Your task to perform on an android device: What is the recent news? Image 0: 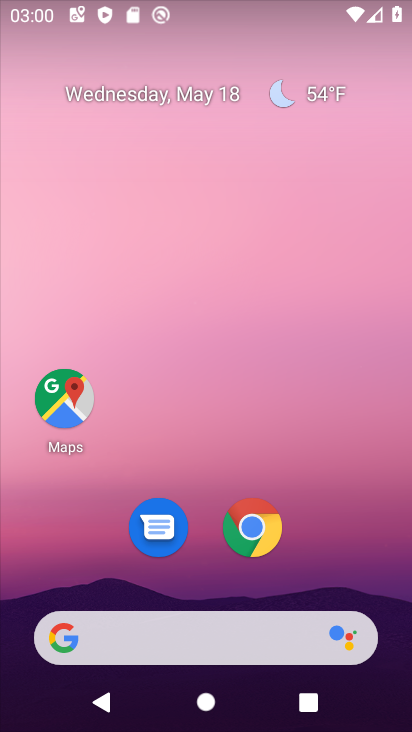
Step 0: drag from (174, 607) to (314, 61)
Your task to perform on an android device: What is the recent news? Image 1: 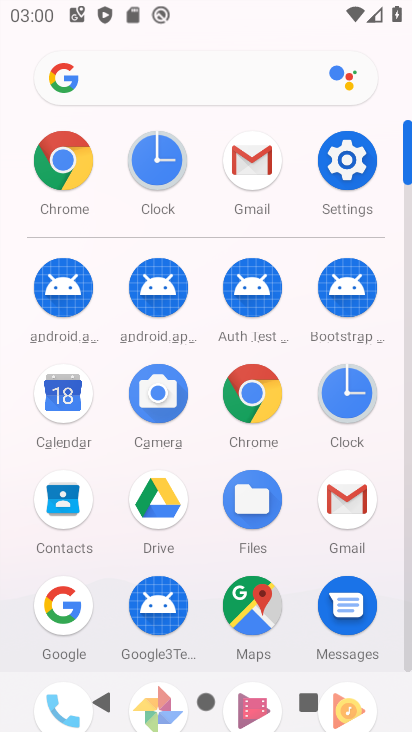
Step 1: drag from (209, 542) to (166, 117)
Your task to perform on an android device: What is the recent news? Image 2: 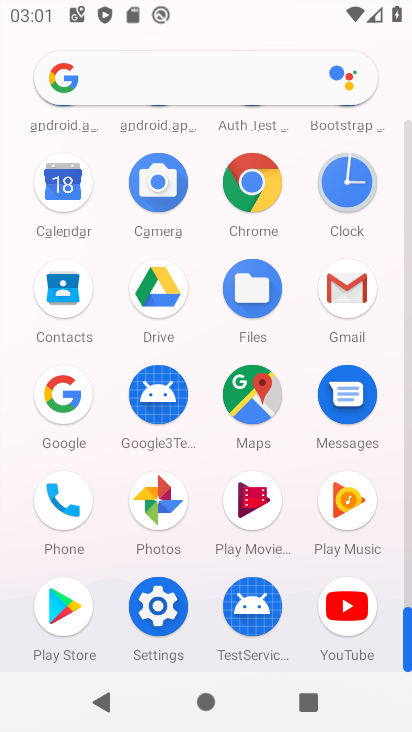
Step 2: drag from (214, 305) to (238, 641)
Your task to perform on an android device: What is the recent news? Image 3: 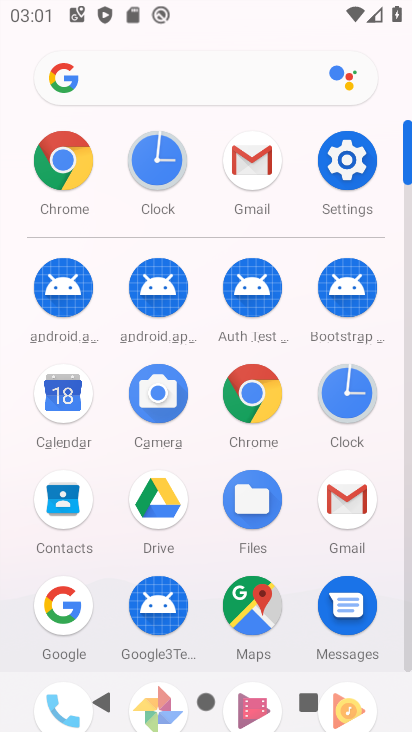
Step 3: click (347, 515)
Your task to perform on an android device: What is the recent news? Image 4: 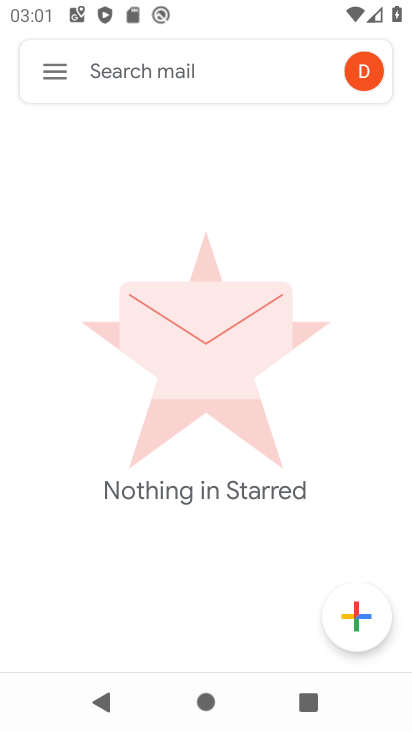
Step 4: press home button
Your task to perform on an android device: What is the recent news? Image 5: 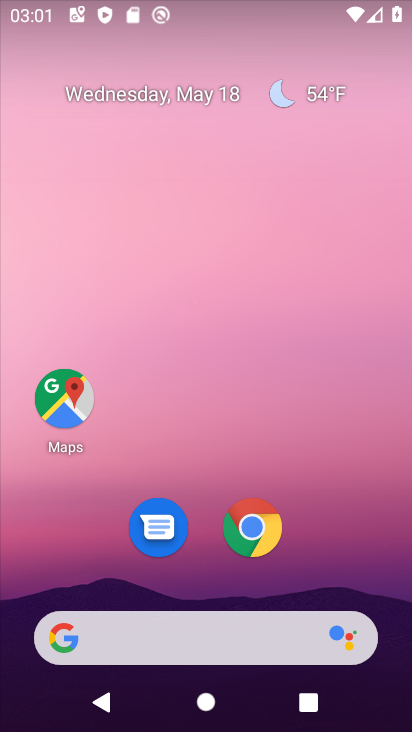
Step 5: drag from (216, 583) to (162, 69)
Your task to perform on an android device: What is the recent news? Image 6: 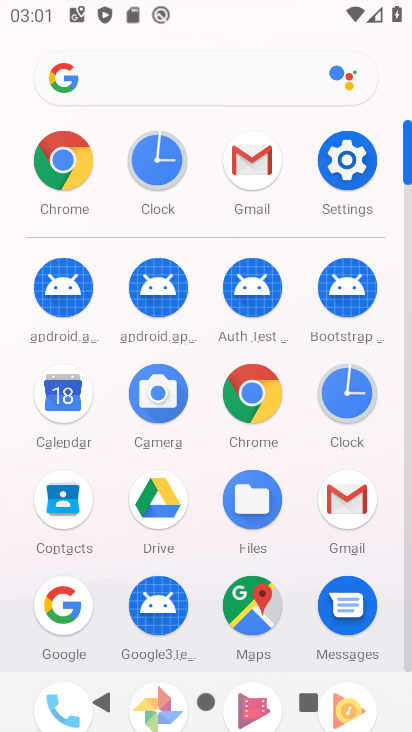
Step 6: click (61, 618)
Your task to perform on an android device: What is the recent news? Image 7: 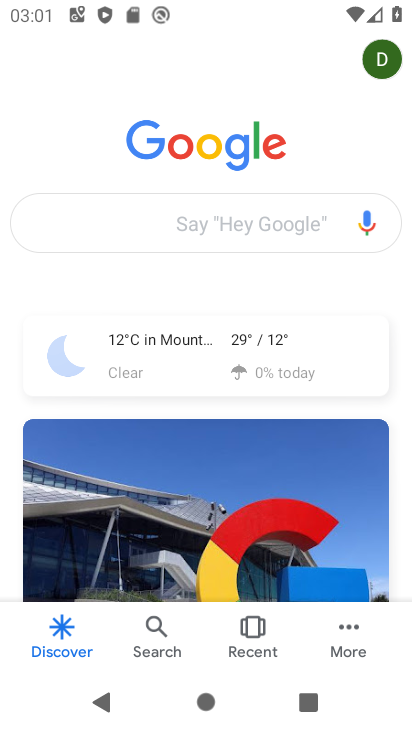
Step 7: click (209, 211)
Your task to perform on an android device: What is the recent news? Image 8: 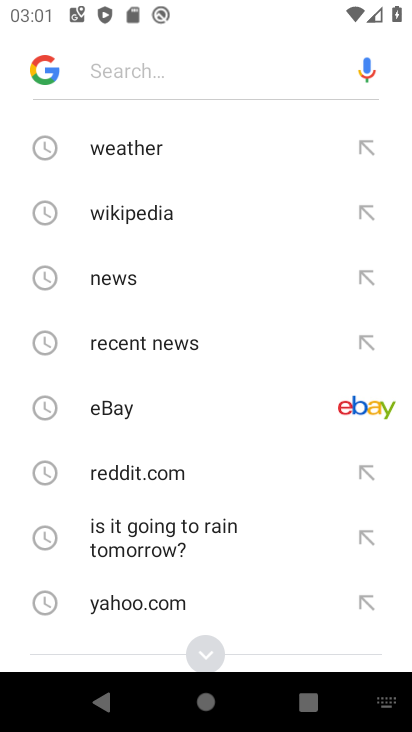
Step 8: click (126, 284)
Your task to perform on an android device: What is the recent news? Image 9: 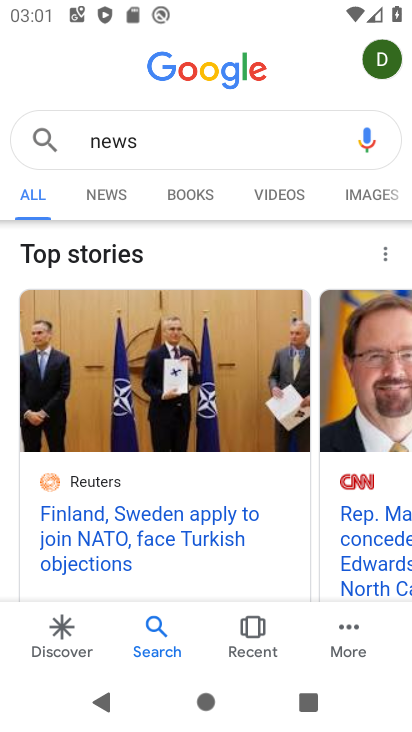
Step 9: task complete